Your task to perform on an android device: read, delete, or share a saved page in the chrome app Image 0: 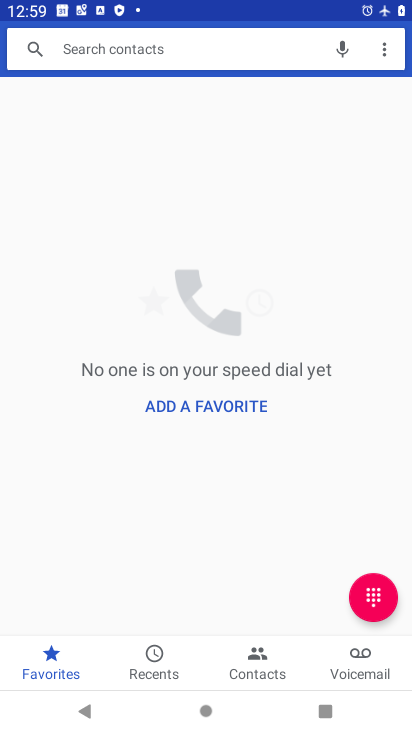
Step 0: press home button
Your task to perform on an android device: read, delete, or share a saved page in the chrome app Image 1: 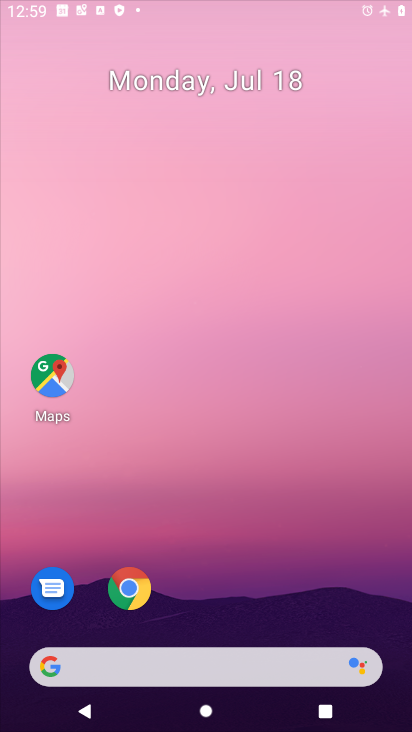
Step 1: drag from (229, 625) to (256, 289)
Your task to perform on an android device: read, delete, or share a saved page in the chrome app Image 2: 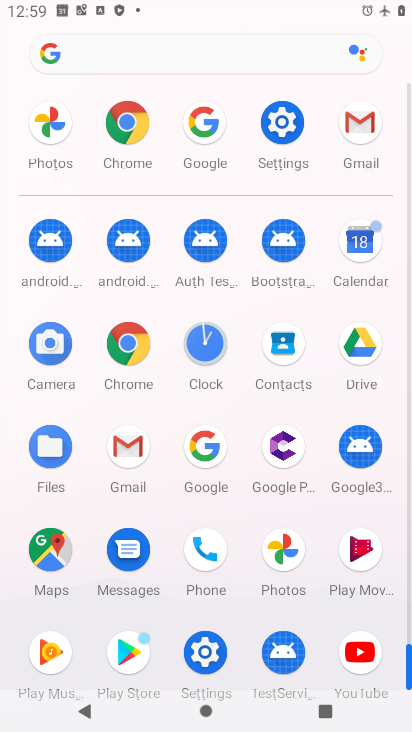
Step 2: drag from (243, 511) to (275, 264)
Your task to perform on an android device: read, delete, or share a saved page in the chrome app Image 3: 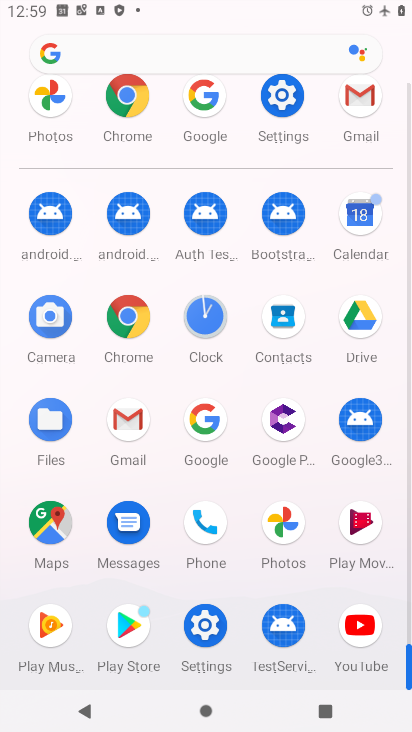
Step 3: click (143, 334)
Your task to perform on an android device: read, delete, or share a saved page in the chrome app Image 4: 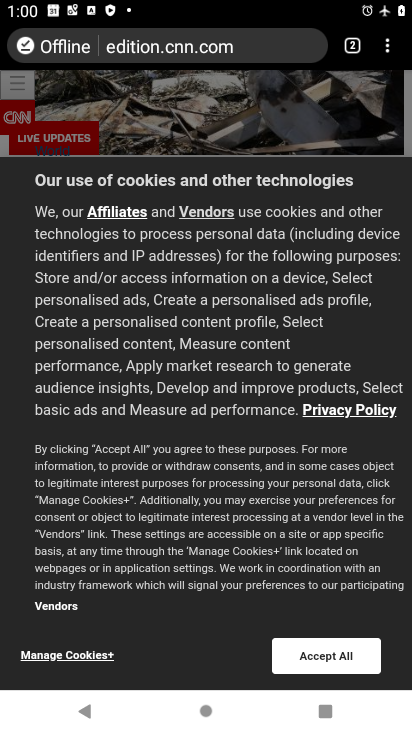
Step 4: click (387, 57)
Your task to perform on an android device: read, delete, or share a saved page in the chrome app Image 5: 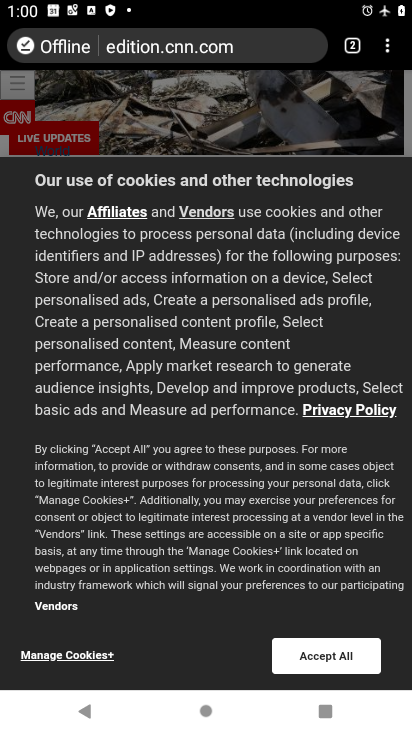
Step 5: click (389, 47)
Your task to perform on an android device: read, delete, or share a saved page in the chrome app Image 6: 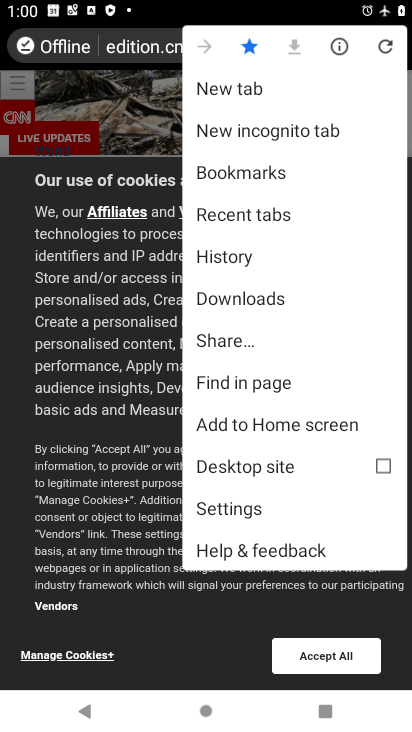
Step 6: click (237, 305)
Your task to perform on an android device: read, delete, or share a saved page in the chrome app Image 7: 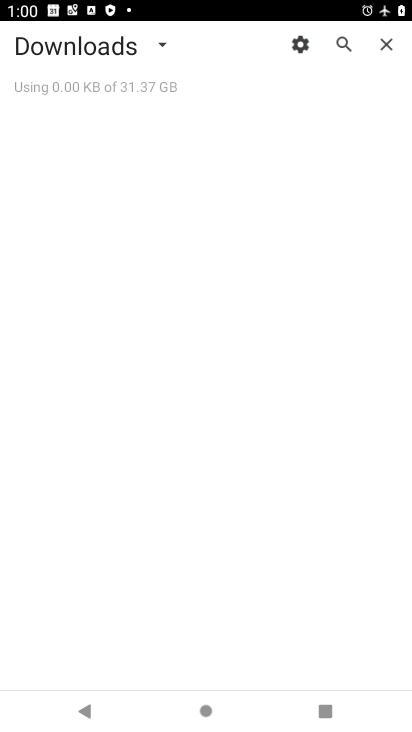
Step 7: click (159, 49)
Your task to perform on an android device: read, delete, or share a saved page in the chrome app Image 8: 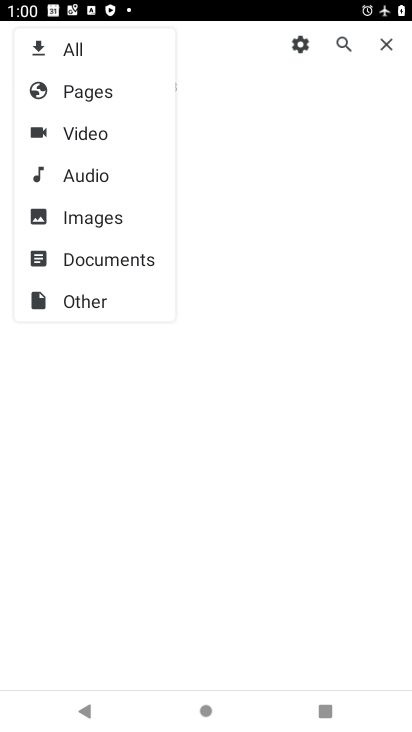
Step 8: click (81, 99)
Your task to perform on an android device: read, delete, or share a saved page in the chrome app Image 9: 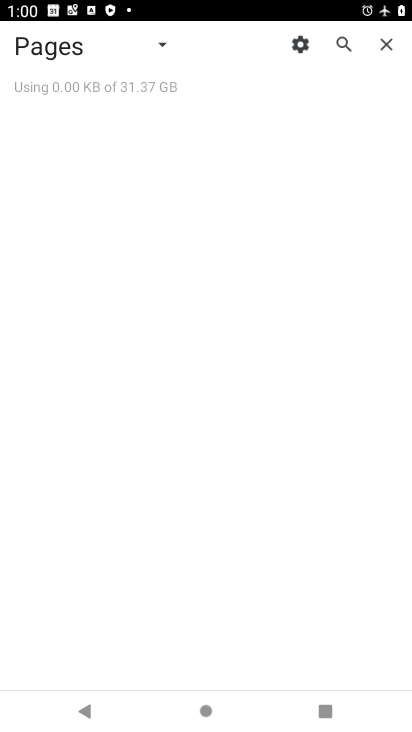
Step 9: task complete